Your task to perform on an android device: Go to sound settings Image 0: 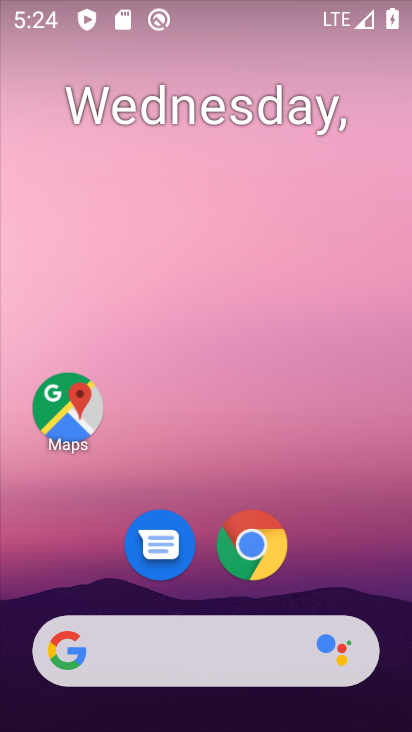
Step 0: drag from (207, 562) to (271, 124)
Your task to perform on an android device: Go to sound settings Image 1: 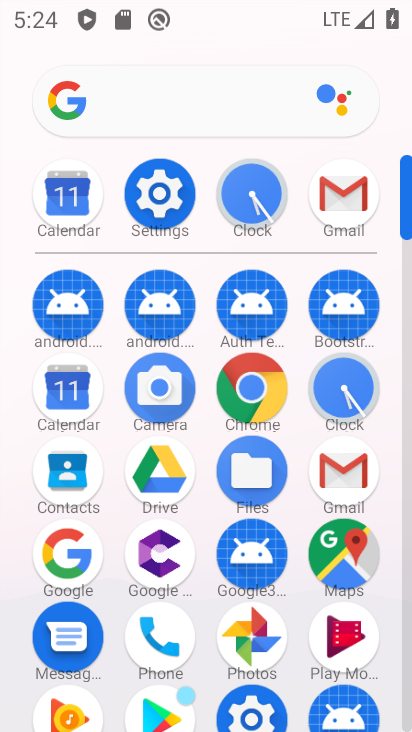
Step 1: click (164, 201)
Your task to perform on an android device: Go to sound settings Image 2: 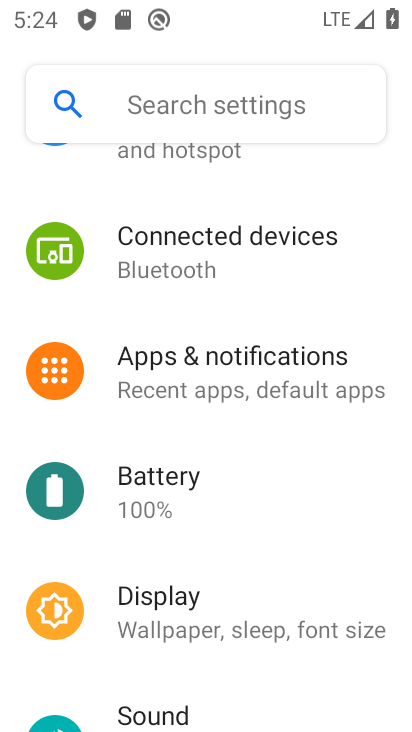
Step 2: drag from (151, 700) to (188, 459)
Your task to perform on an android device: Go to sound settings Image 3: 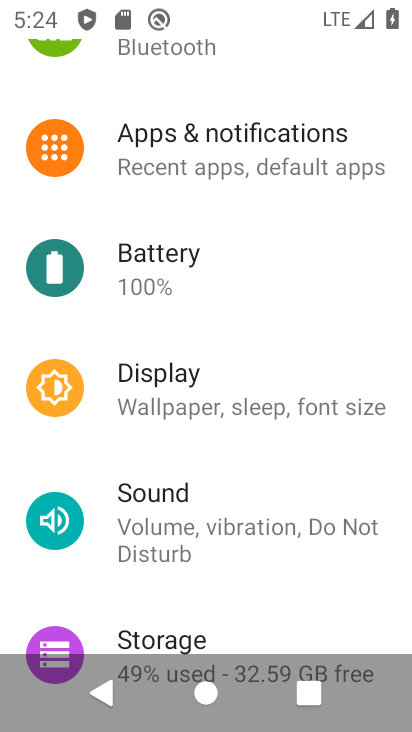
Step 3: click (171, 522)
Your task to perform on an android device: Go to sound settings Image 4: 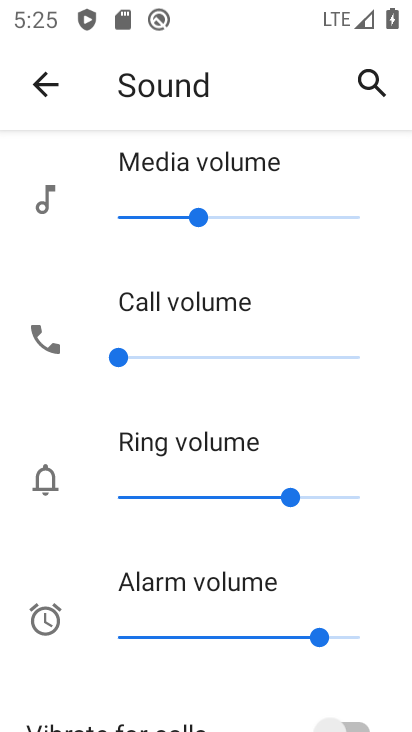
Step 4: task complete